Your task to perform on an android device: turn on the 24-hour format for clock Image 0: 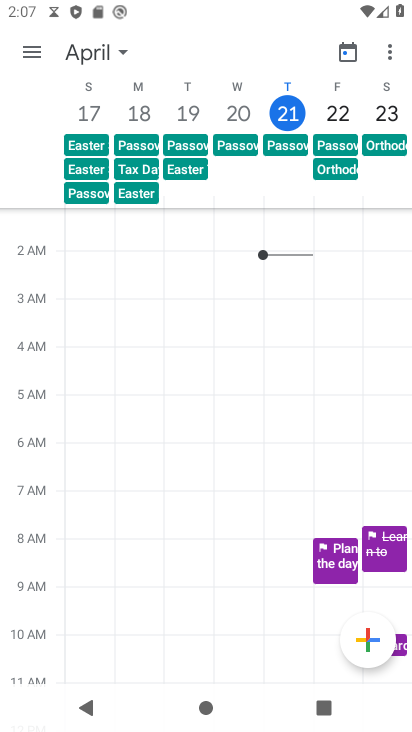
Step 0: drag from (163, 652) to (261, 257)
Your task to perform on an android device: turn on the 24-hour format for clock Image 1: 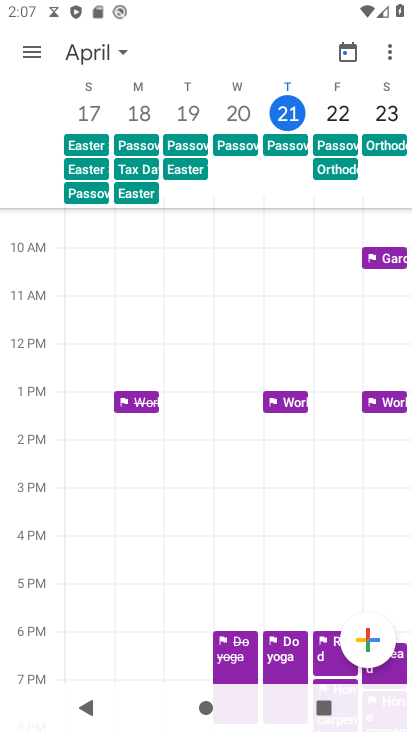
Step 1: press home button
Your task to perform on an android device: turn on the 24-hour format for clock Image 2: 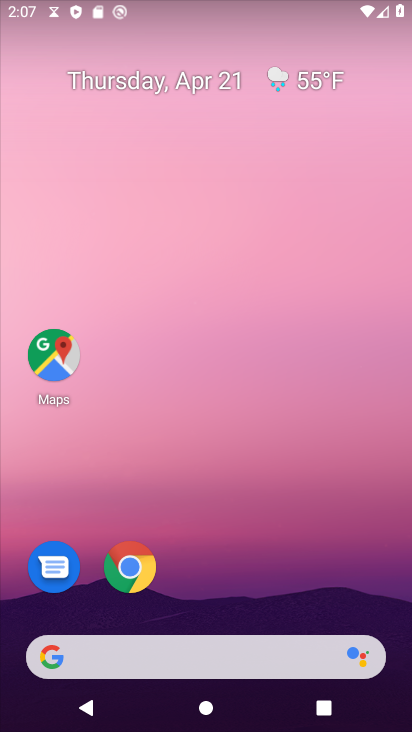
Step 2: drag from (156, 640) to (254, 192)
Your task to perform on an android device: turn on the 24-hour format for clock Image 3: 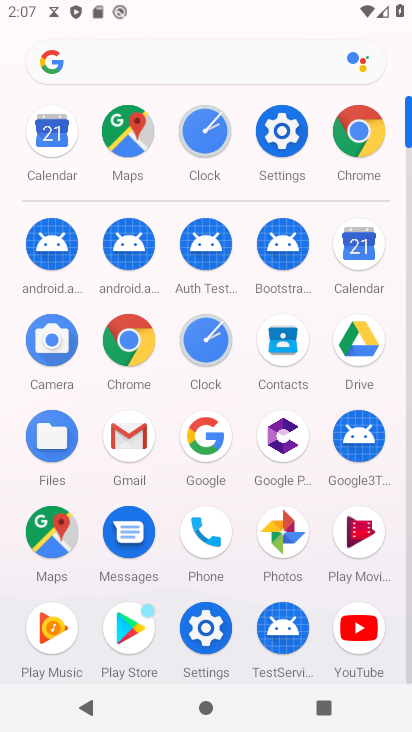
Step 3: click (199, 356)
Your task to perform on an android device: turn on the 24-hour format for clock Image 4: 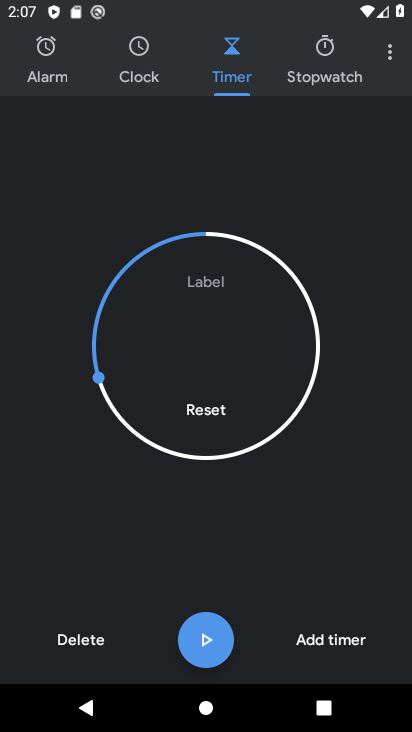
Step 4: click (391, 56)
Your task to perform on an android device: turn on the 24-hour format for clock Image 5: 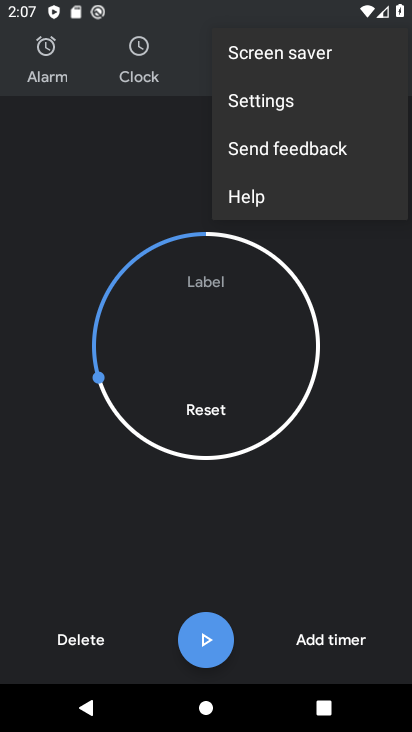
Step 5: click (272, 105)
Your task to perform on an android device: turn on the 24-hour format for clock Image 6: 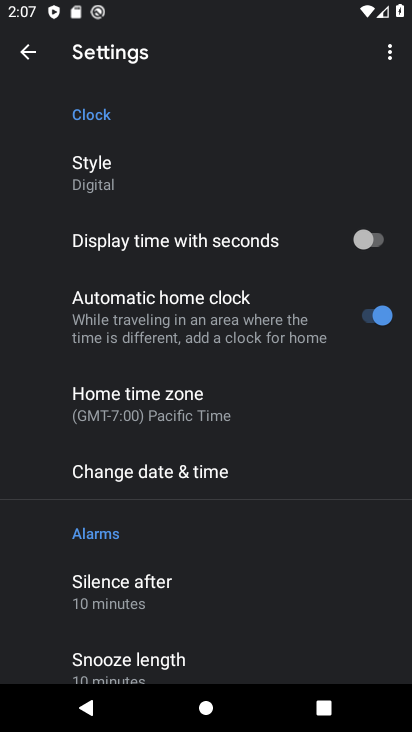
Step 6: click (188, 462)
Your task to perform on an android device: turn on the 24-hour format for clock Image 7: 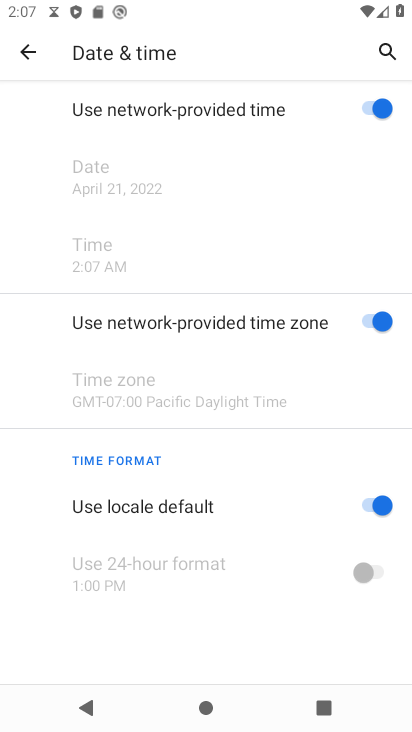
Step 7: click (368, 504)
Your task to perform on an android device: turn on the 24-hour format for clock Image 8: 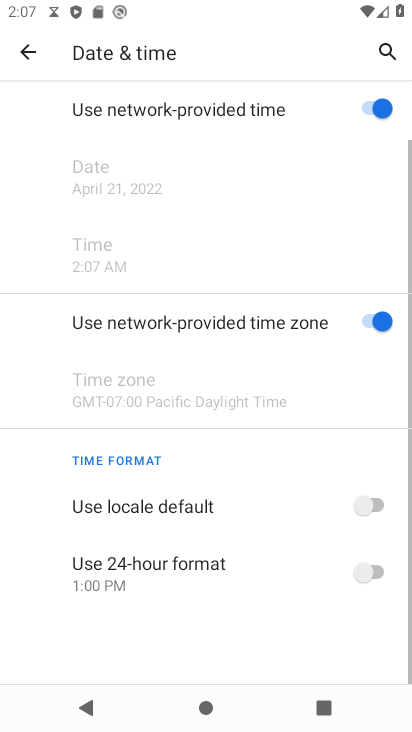
Step 8: click (380, 574)
Your task to perform on an android device: turn on the 24-hour format for clock Image 9: 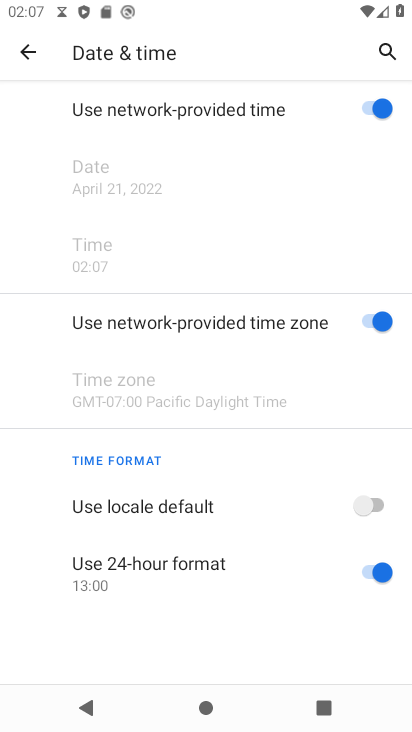
Step 9: task complete